Your task to perform on an android device: Open privacy settings Image 0: 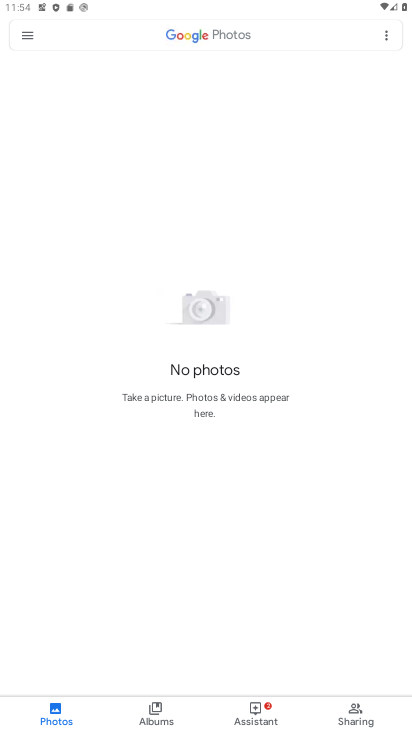
Step 0: drag from (276, 522) to (290, 351)
Your task to perform on an android device: Open privacy settings Image 1: 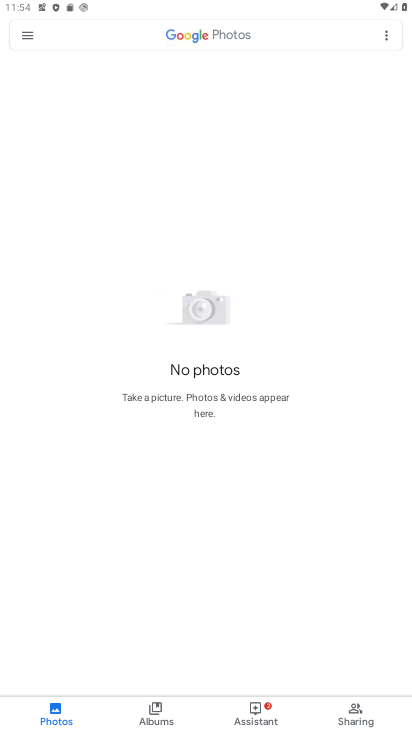
Step 1: press home button
Your task to perform on an android device: Open privacy settings Image 2: 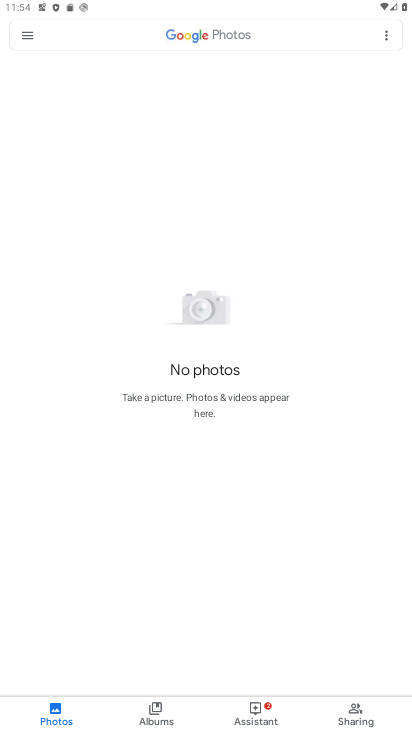
Step 2: press home button
Your task to perform on an android device: Open privacy settings Image 3: 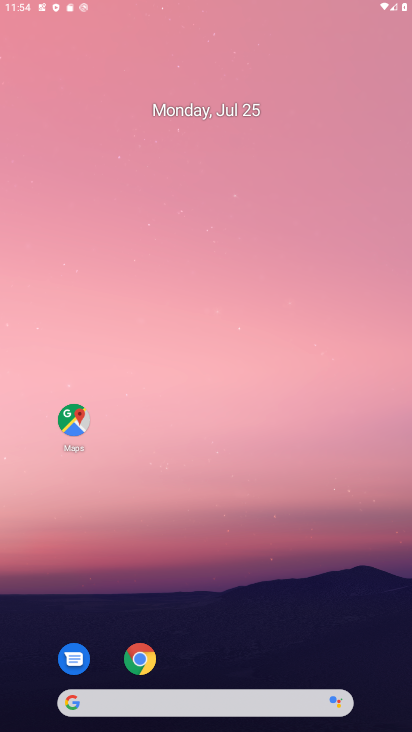
Step 3: drag from (253, 306) to (253, 119)
Your task to perform on an android device: Open privacy settings Image 4: 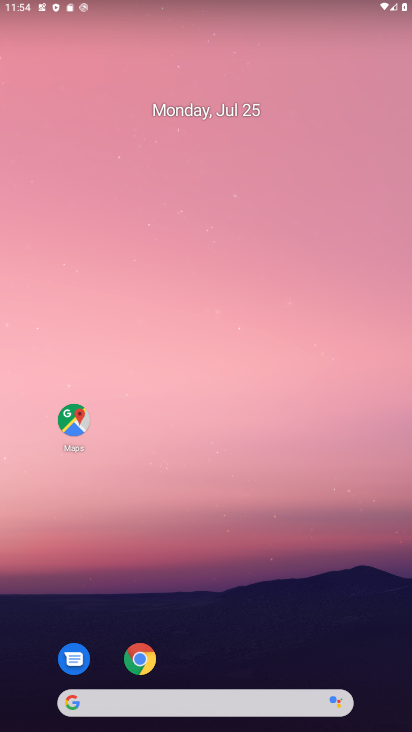
Step 4: drag from (184, 664) to (288, 71)
Your task to perform on an android device: Open privacy settings Image 5: 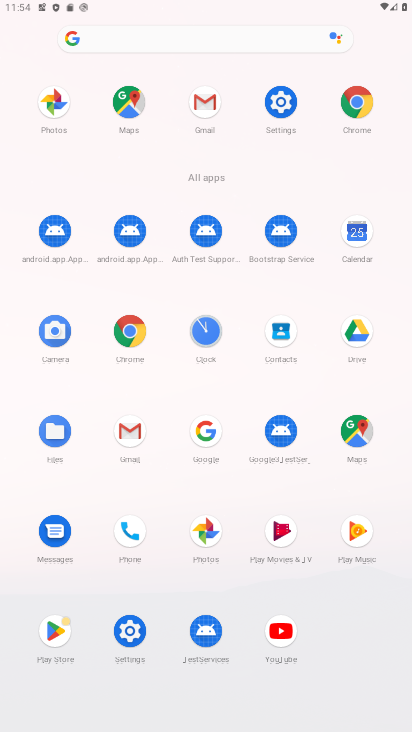
Step 5: click (278, 107)
Your task to perform on an android device: Open privacy settings Image 6: 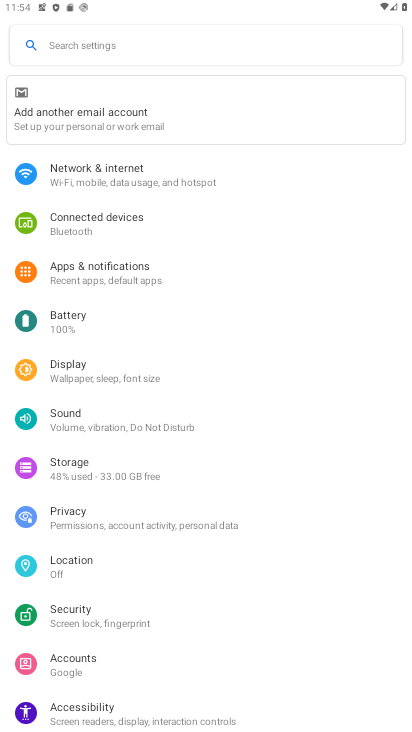
Step 6: click (77, 519)
Your task to perform on an android device: Open privacy settings Image 7: 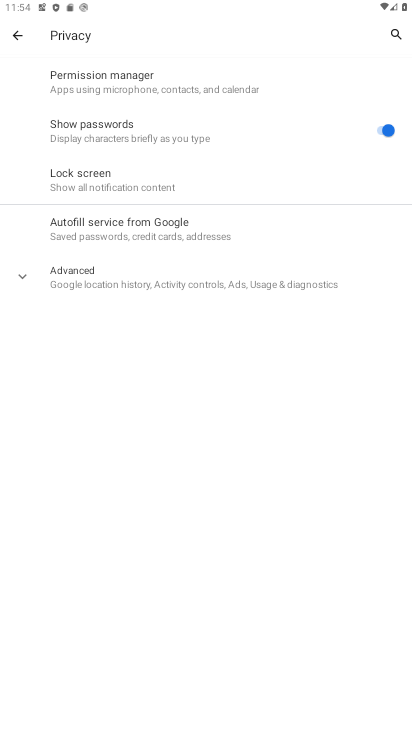
Step 7: task complete